Your task to perform on an android device: toggle priority inbox in the gmail app Image 0: 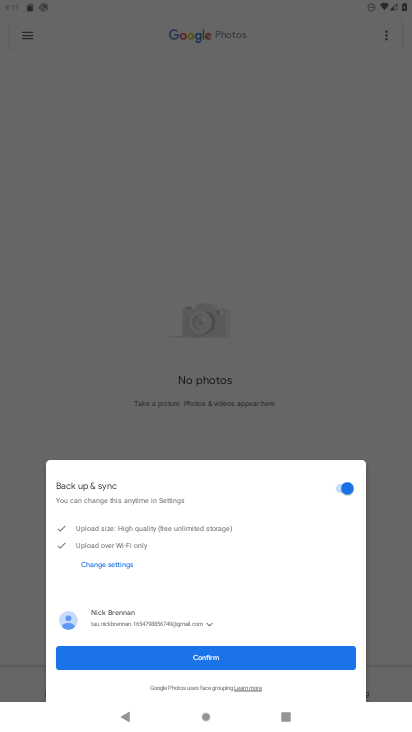
Step 0: press home button
Your task to perform on an android device: toggle priority inbox in the gmail app Image 1: 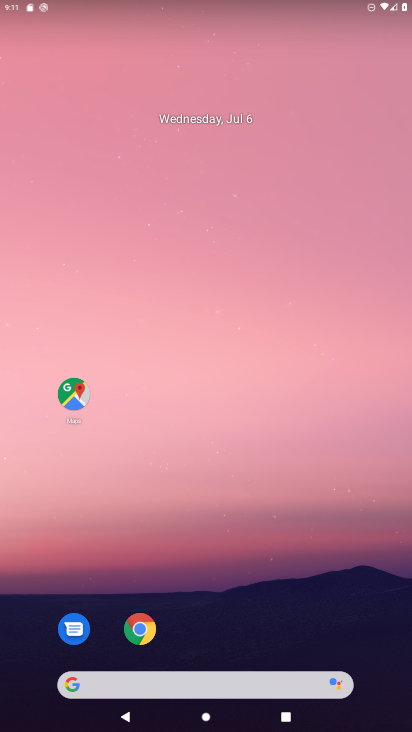
Step 1: drag from (206, 680) to (232, 46)
Your task to perform on an android device: toggle priority inbox in the gmail app Image 2: 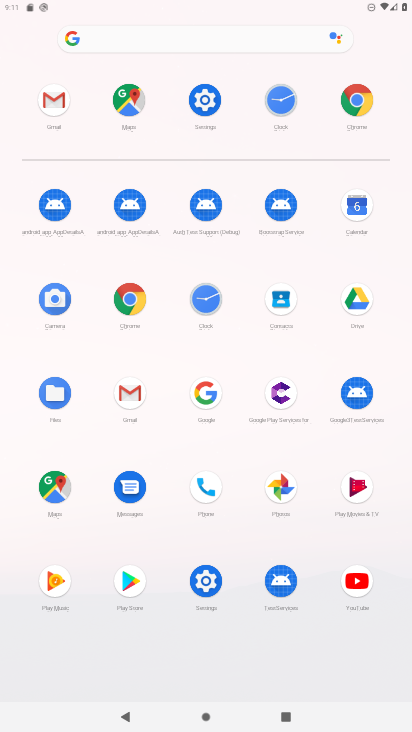
Step 2: click (119, 407)
Your task to perform on an android device: toggle priority inbox in the gmail app Image 3: 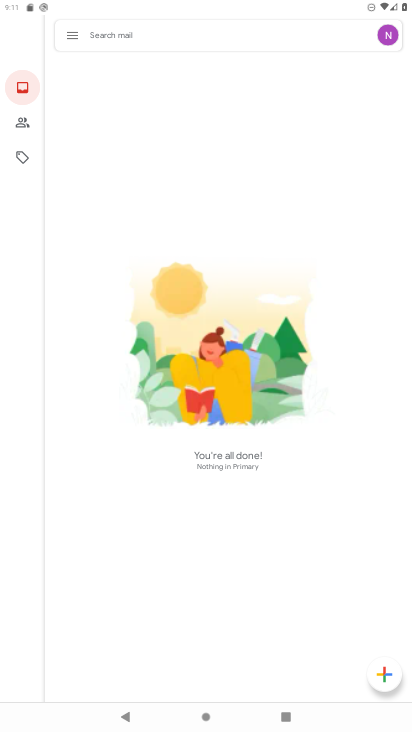
Step 3: click (64, 38)
Your task to perform on an android device: toggle priority inbox in the gmail app Image 4: 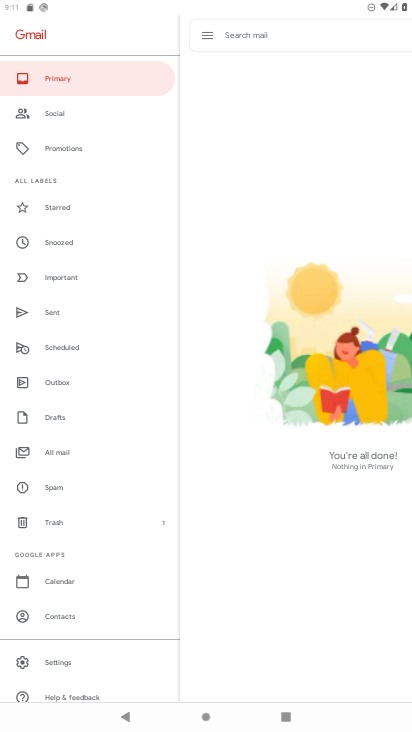
Step 4: drag from (129, 564) to (151, 190)
Your task to perform on an android device: toggle priority inbox in the gmail app Image 5: 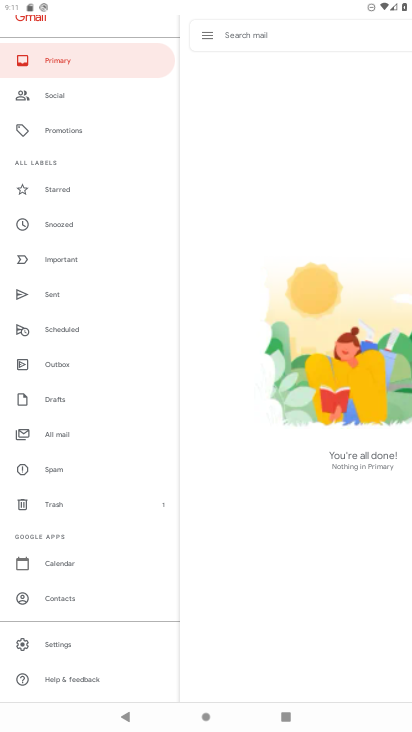
Step 5: click (43, 647)
Your task to perform on an android device: toggle priority inbox in the gmail app Image 6: 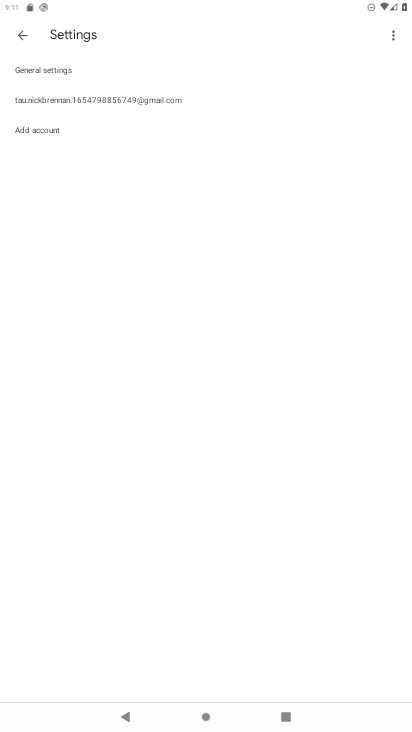
Step 6: click (125, 106)
Your task to perform on an android device: toggle priority inbox in the gmail app Image 7: 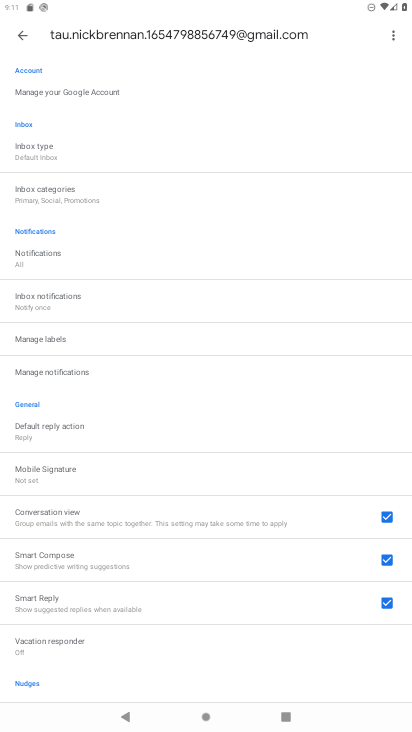
Step 7: drag from (155, 559) to (213, 147)
Your task to perform on an android device: toggle priority inbox in the gmail app Image 8: 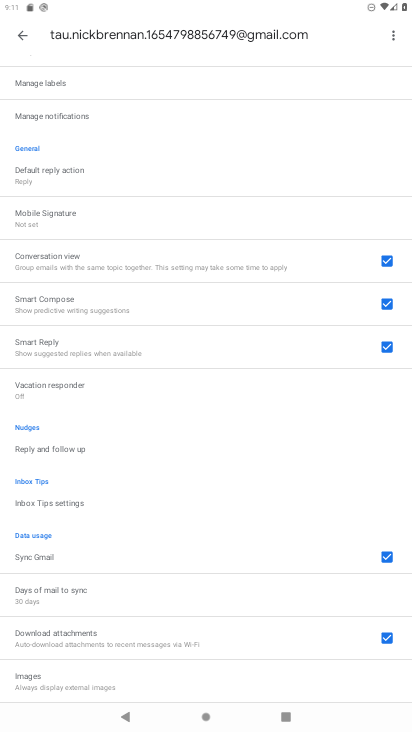
Step 8: drag from (249, 121) to (137, 597)
Your task to perform on an android device: toggle priority inbox in the gmail app Image 9: 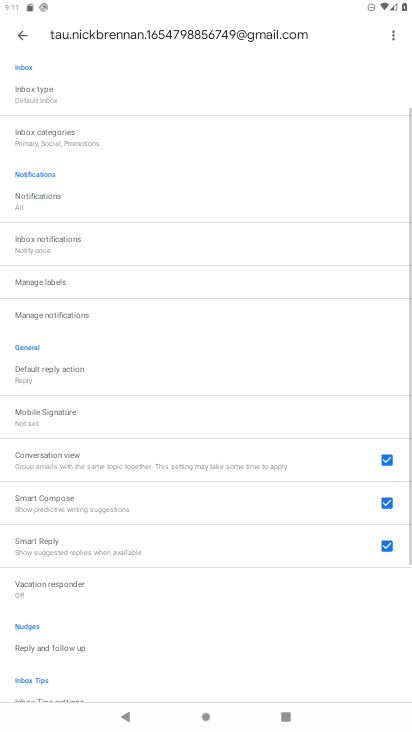
Step 9: click (68, 161)
Your task to perform on an android device: toggle priority inbox in the gmail app Image 10: 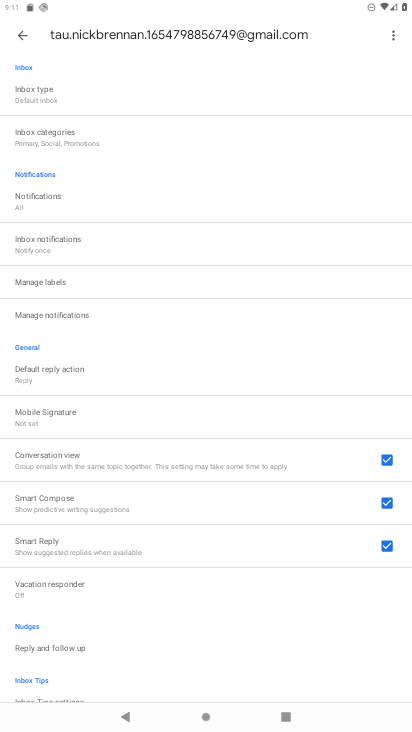
Step 10: click (68, 92)
Your task to perform on an android device: toggle priority inbox in the gmail app Image 11: 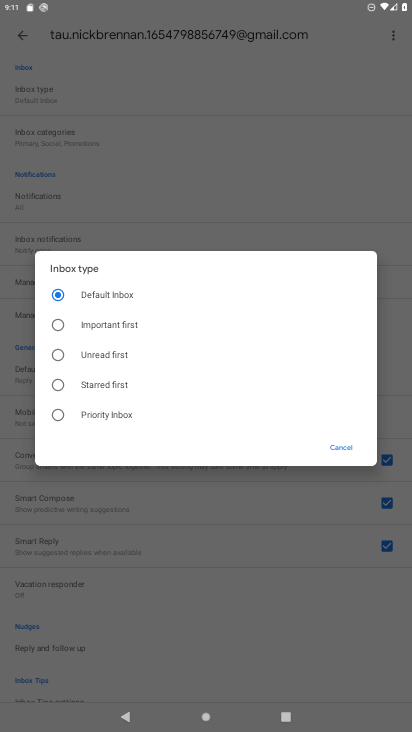
Step 11: click (57, 414)
Your task to perform on an android device: toggle priority inbox in the gmail app Image 12: 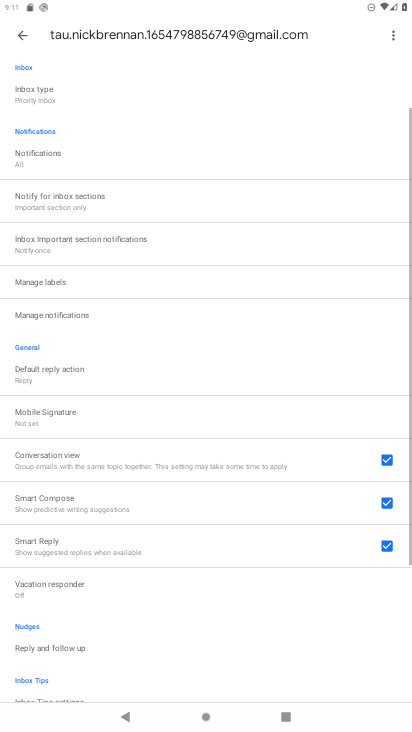
Step 12: task complete